Your task to perform on an android device: open the mobile data screen to see how much data has been used Image 0: 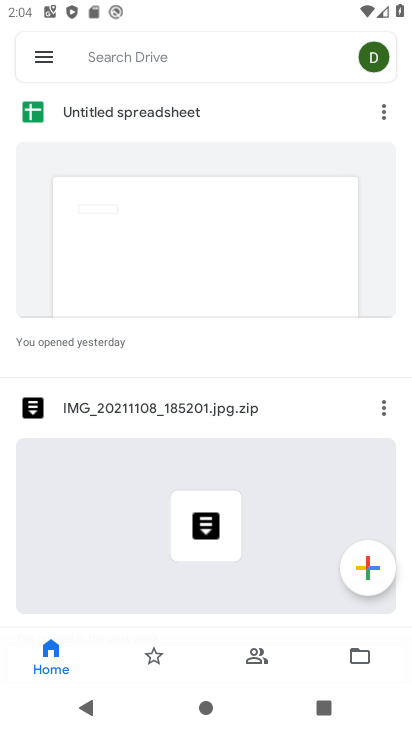
Step 0: press home button
Your task to perform on an android device: open the mobile data screen to see how much data has been used Image 1: 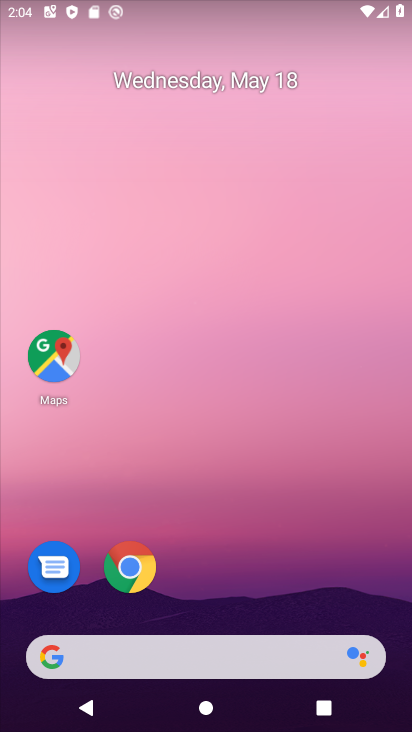
Step 1: drag from (208, 586) to (249, 283)
Your task to perform on an android device: open the mobile data screen to see how much data has been used Image 2: 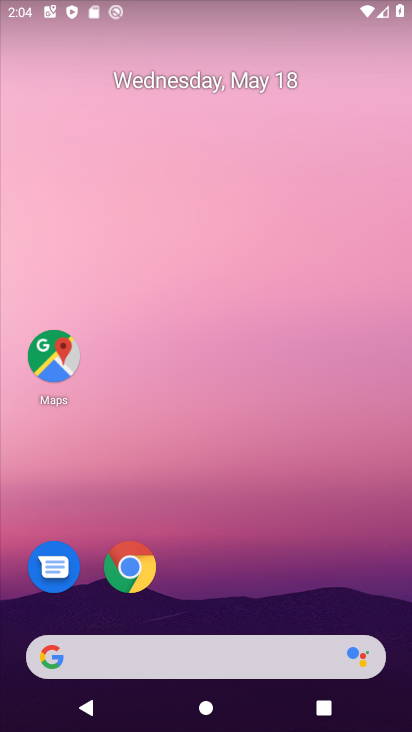
Step 2: drag from (246, 572) to (271, 284)
Your task to perform on an android device: open the mobile data screen to see how much data has been used Image 3: 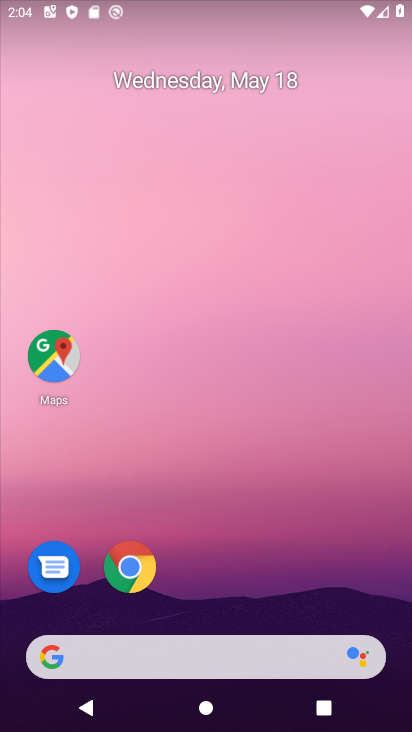
Step 3: click (251, 172)
Your task to perform on an android device: open the mobile data screen to see how much data has been used Image 4: 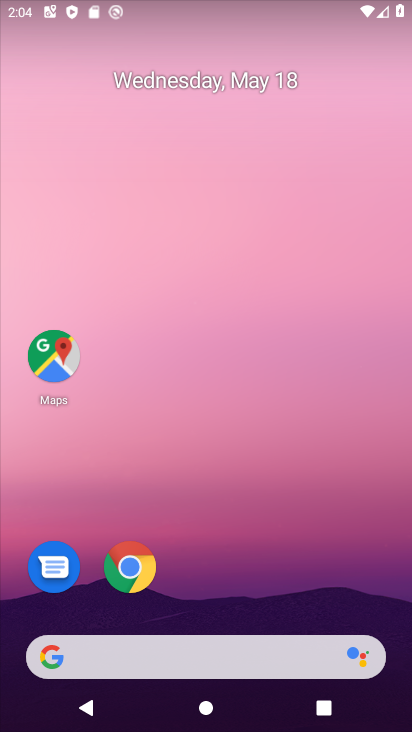
Step 4: drag from (197, 571) to (226, 284)
Your task to perform on an android device: open the mobile data screen to see how much data has been used Image 5: 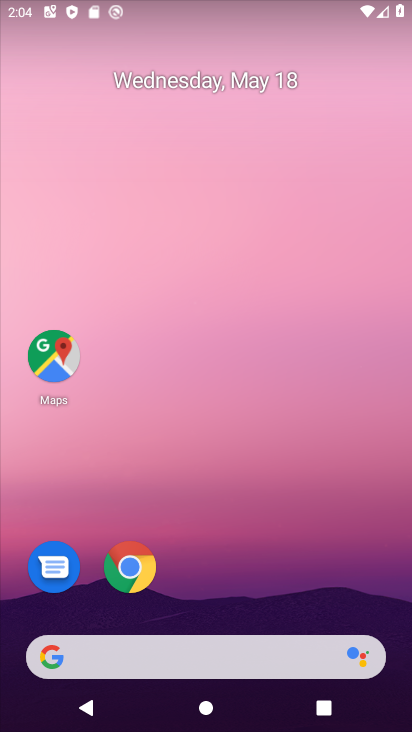
Step 5: drag from (234, 649) to (262, 169)
Your task to perform on an android device: open the mobile data screen to see how much data has been used Image 6: 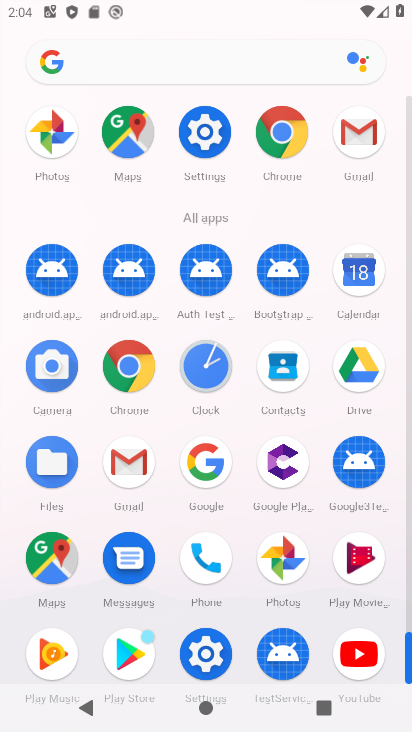
Step 6: click (206, 132)
Your task to perform on an android device: open the mobile data screen to see how much data has been used Image 7: 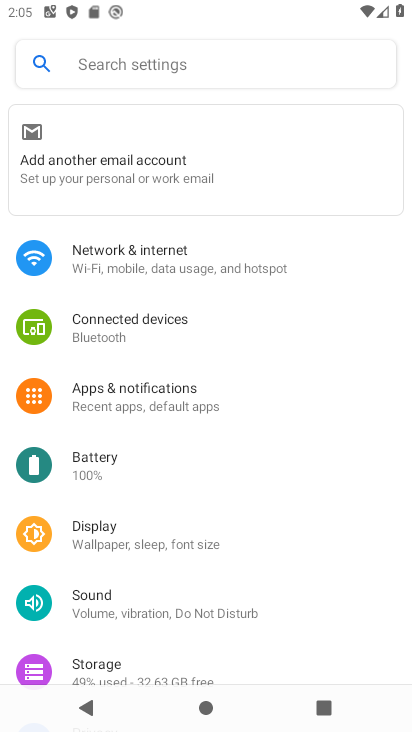
Step 7: click (165, 261)
Your task to perform on an android device: open the mobile data screen to see how much data has been used Image 8: 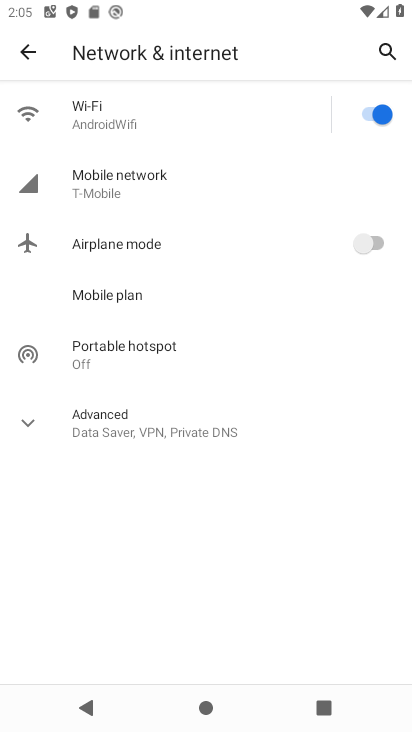
Step 8: click (172, 184)
Your task to perform on an android device: open the mobile data screen to see how much data has been used Image 9: 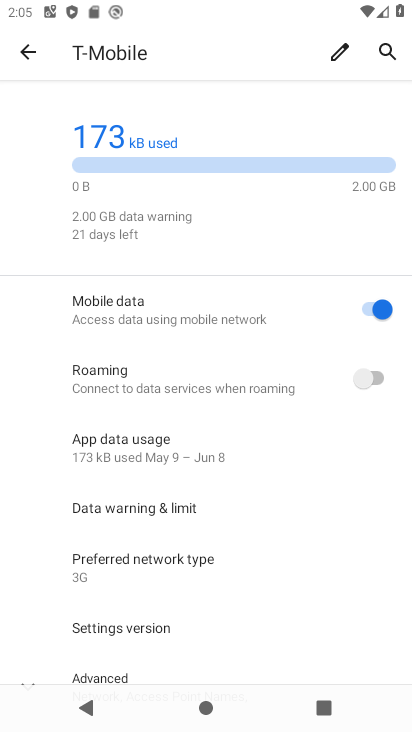
Step 9: task complete